Your task to perform on an android device: toggle data saver in the chrome app Image 0: 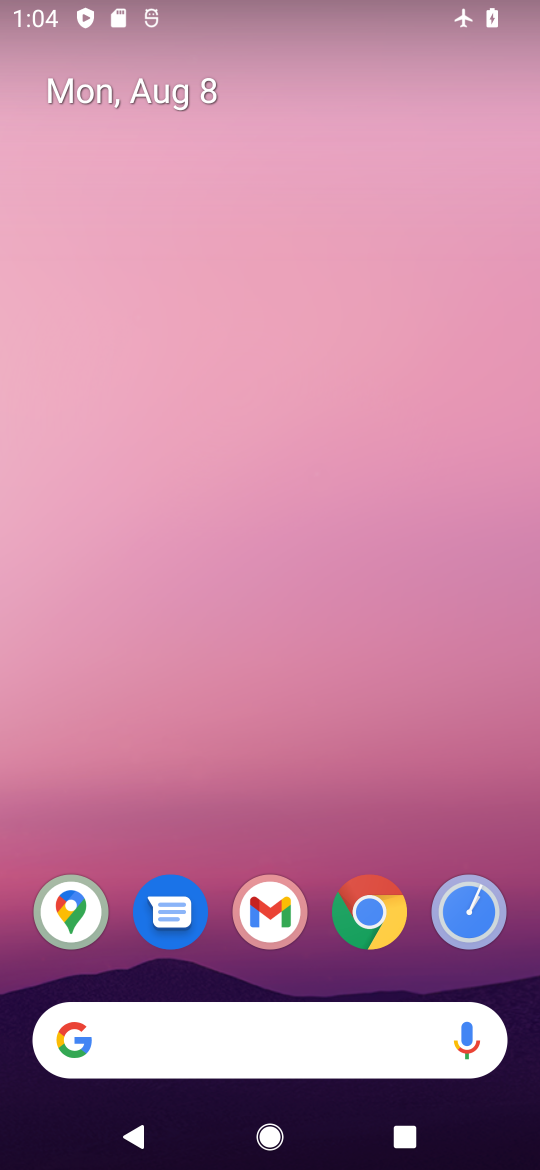
Step 0: click (374, 917)
Your task to perform on an android device: toggle data saver in the chrome app Image 1: 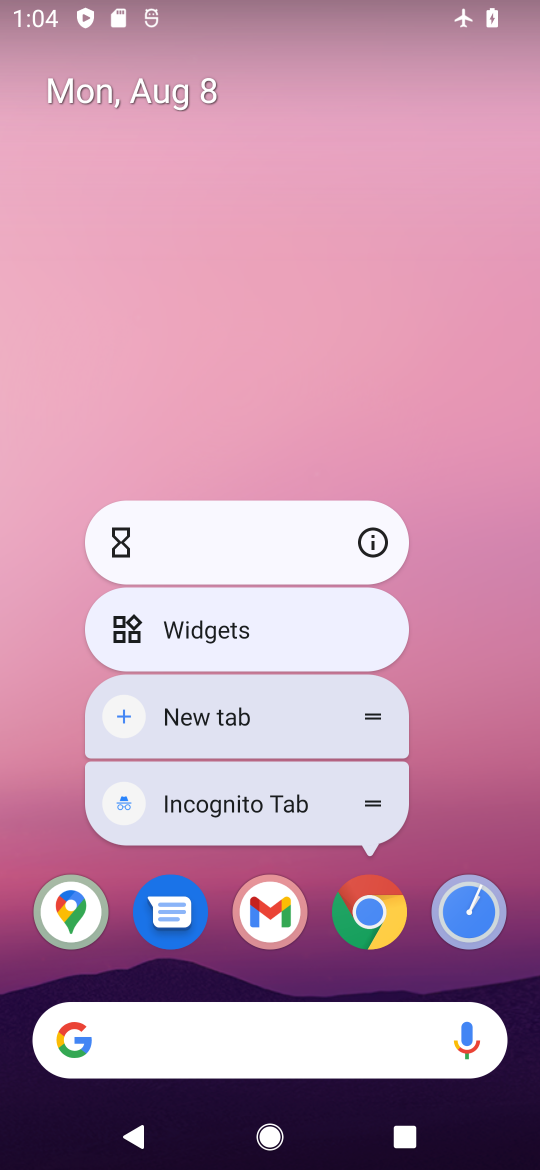
Step 1: click (374, 917)
Your task to perform on an android device: toggle data saver in the chrome app Image 2: 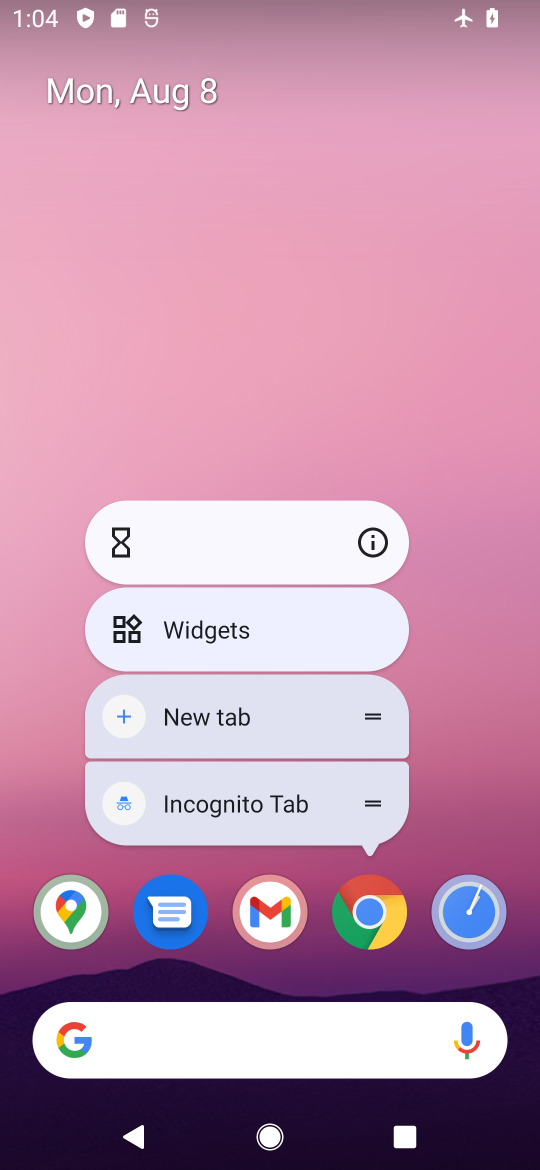
Step 2: click (374, 903)
Your task to perform on an android device: toggle data saver in the chrome app Image 3: 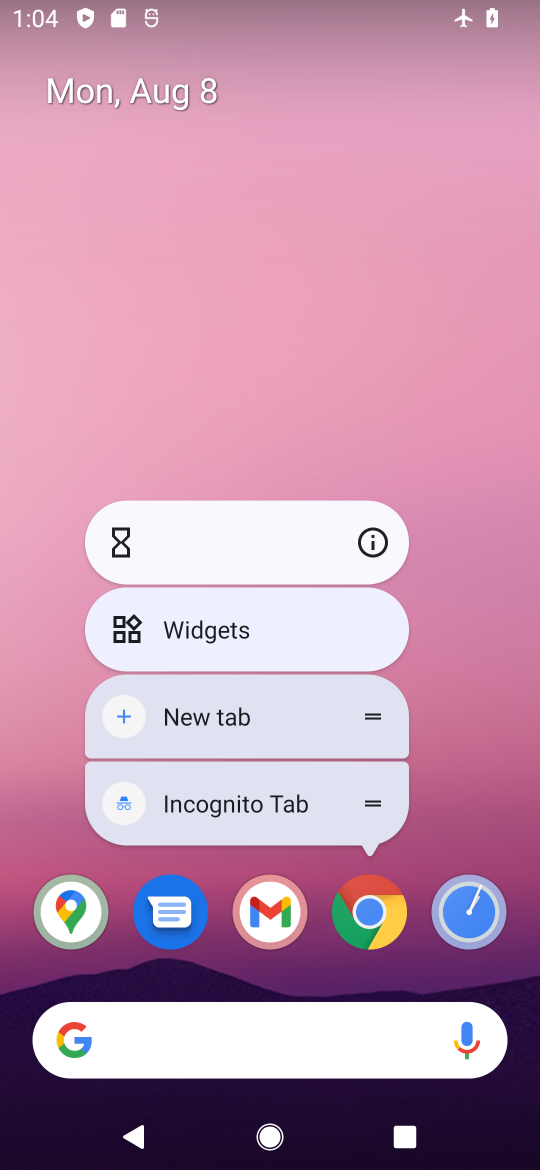
Step 3: click (368, 907)
Your task to perform on an android device: toggle data saver in the chrome app Image 4: 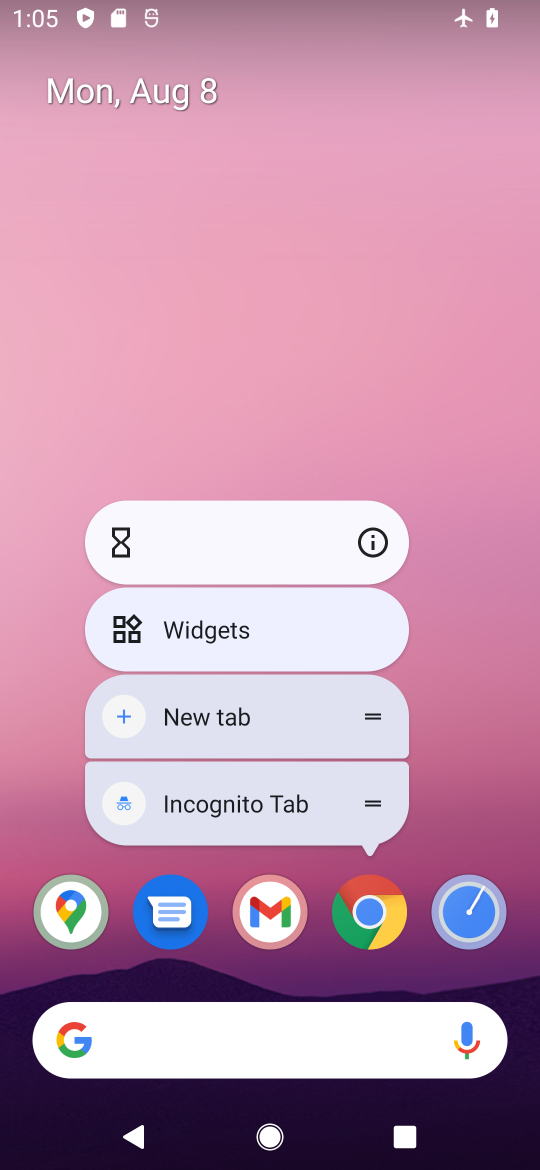
Step 4: click (365, 919)
Your task to perform on an android device: toggle data saver in the chrome app Image 5: 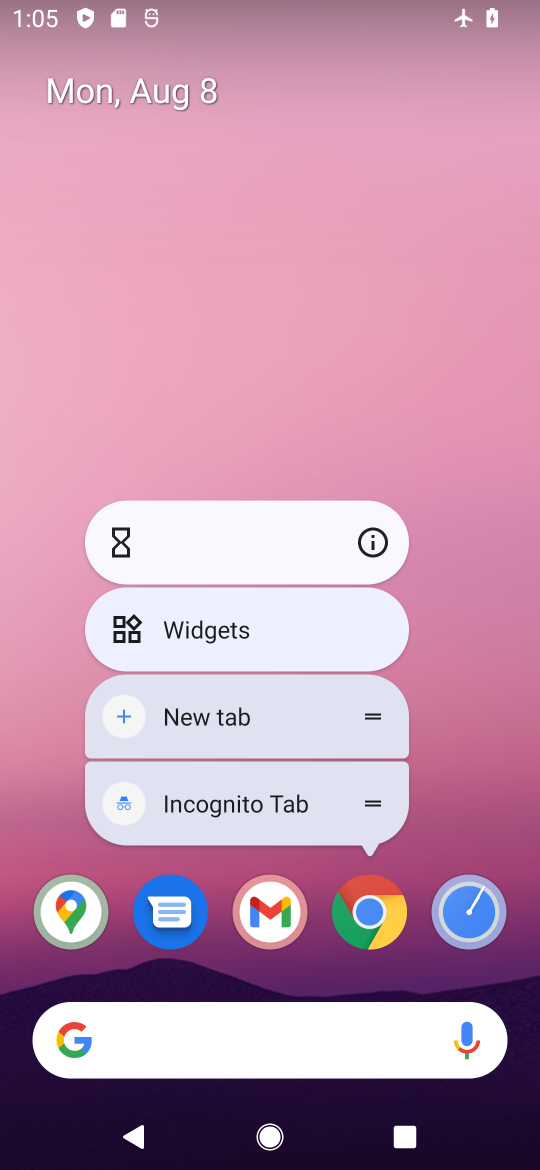
Step 5: click (375, 916)
Your task to perform on an android device: toggle data saver in the chrome app Image 6: 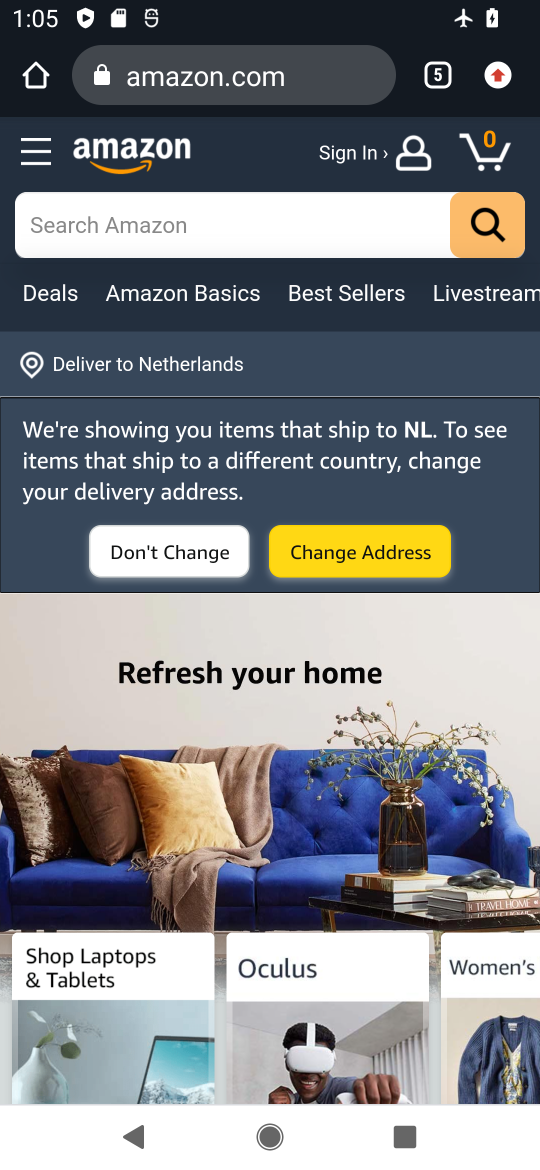
Step 6: drag from (505, 76) to (302, 998)
Your task to perform on an android device: toggle data saver in the chrome app Image 7: 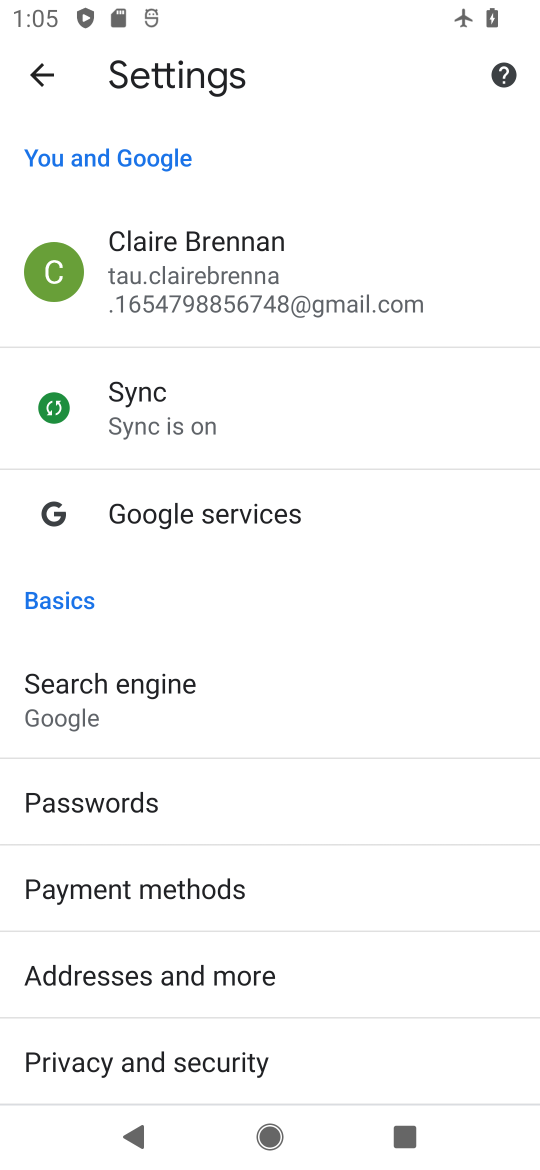
Step 7: drag from (252, 1018) to (475, 39)
Your task to perform on an android device: toggle data saver in the chrome app Image 8: 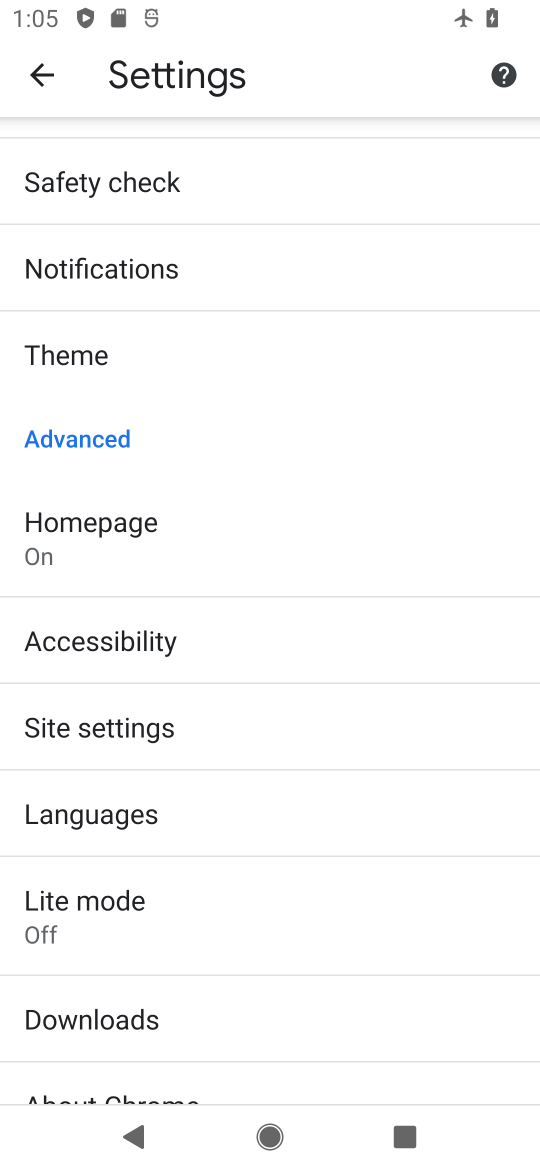
Step 8: click (170, 899)
Your task to perform on an android device: toggle data saver in the chrome app Image 9: 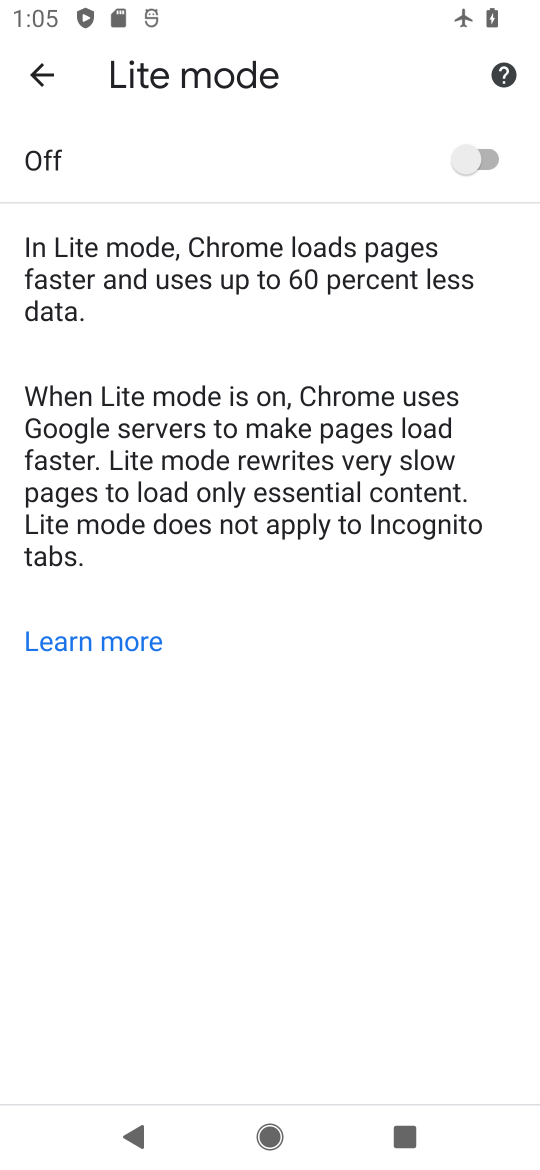
Step 9: click (474, 159)
Your task to perform on an android device: toggle data saver in the chrome app Image 10: 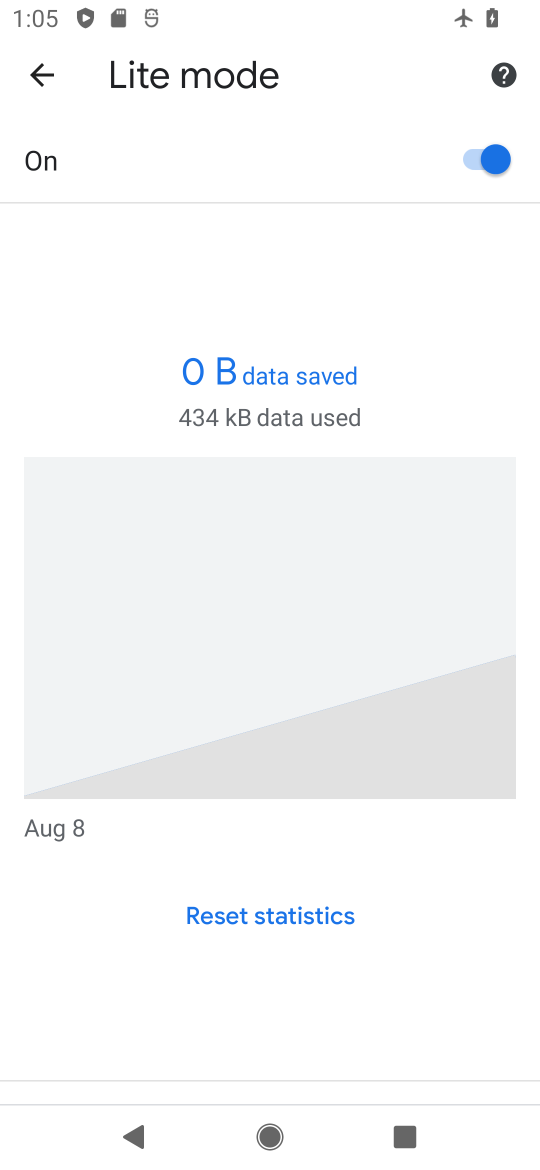
Step 10: task complete